Your task to perform on an android device: Search for bose soundlink on target.com, select the first entry, and add it to the cart. Image 0: 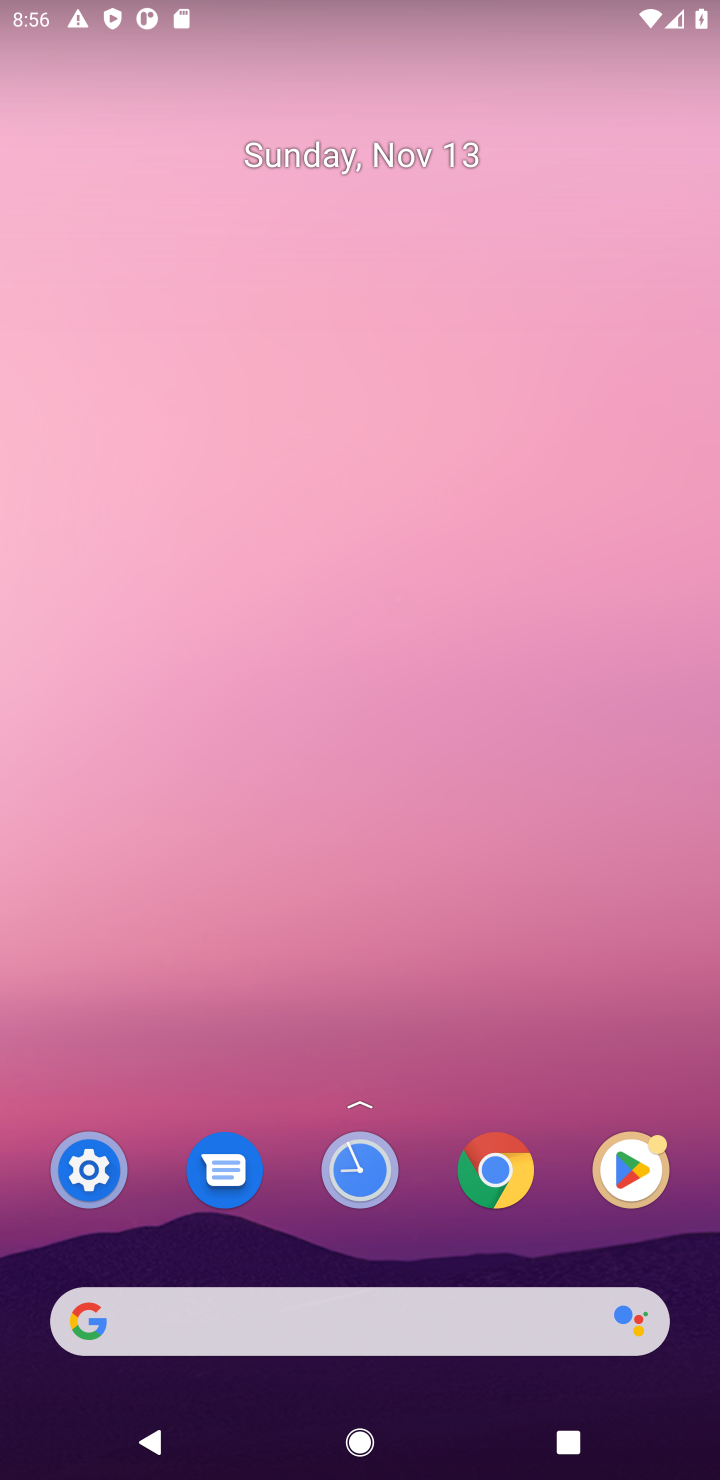
Step 0: click (401, 1330)
Your task to perform on an android device: Search for bose soundlink on target.com, select the first entry, and add it to the cart. Image 1: 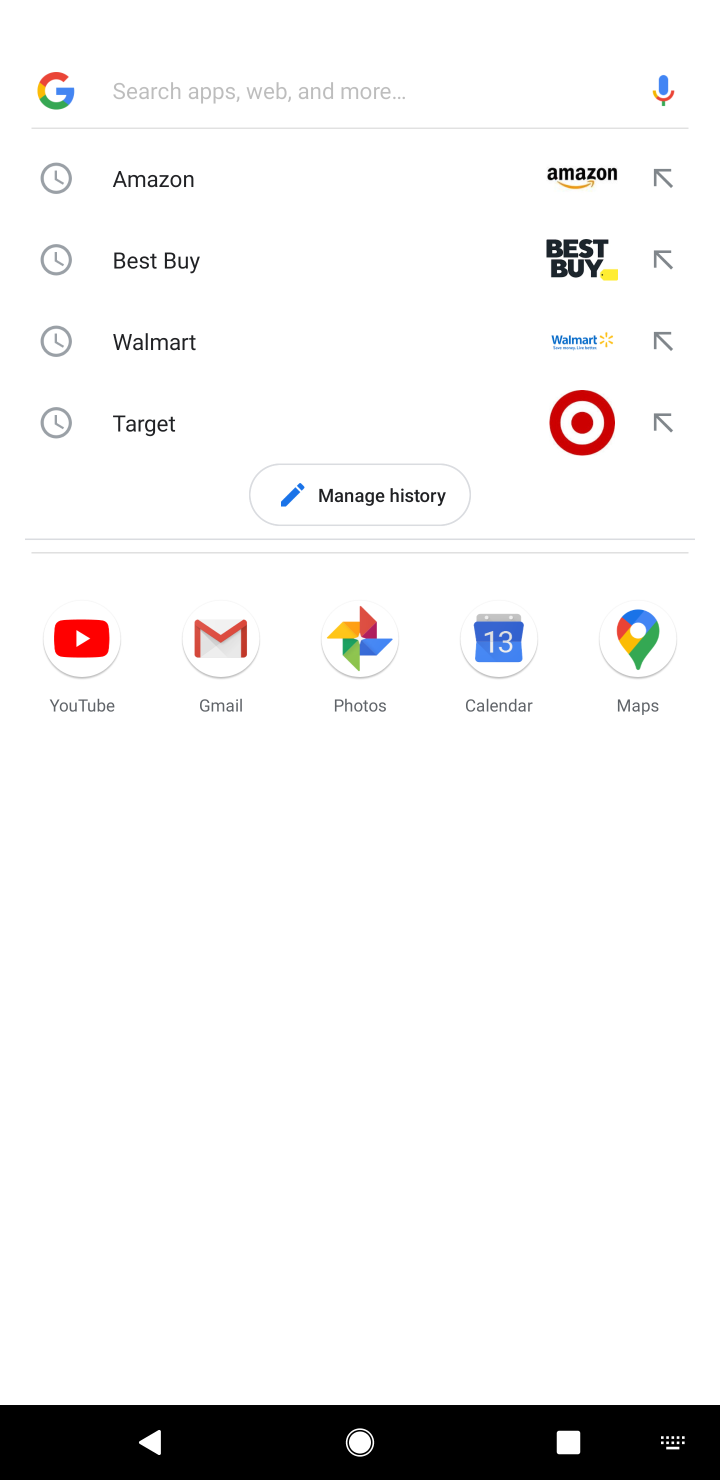
Step 1: type "target"
Your task to perform on an android device: Search for bose soundlink on target.com, select the first entry, and add it to the cart. Image 2: 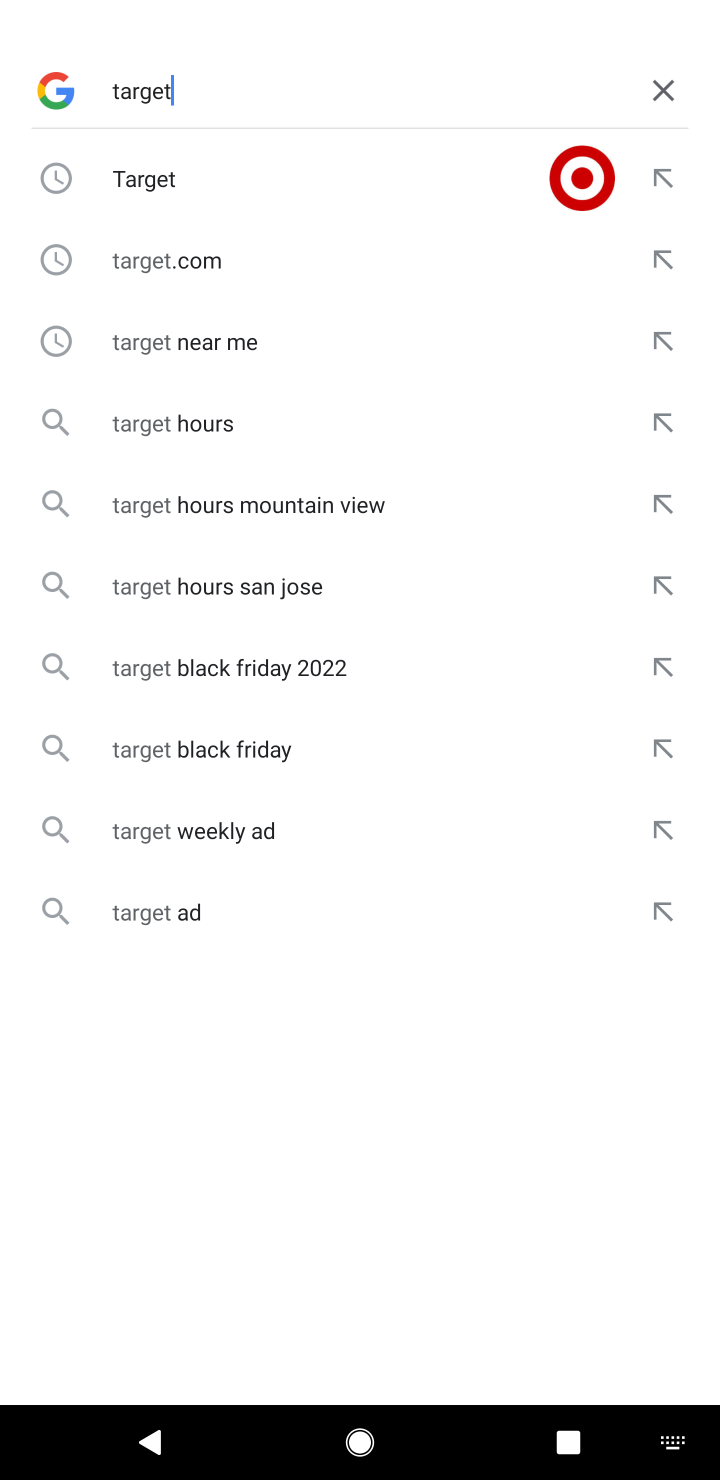
Step 2: click (163, 167)
Your task to perform on an android device: Search for bose soundlink on target.com, select the first entry, and add it to the cart. Image 3: 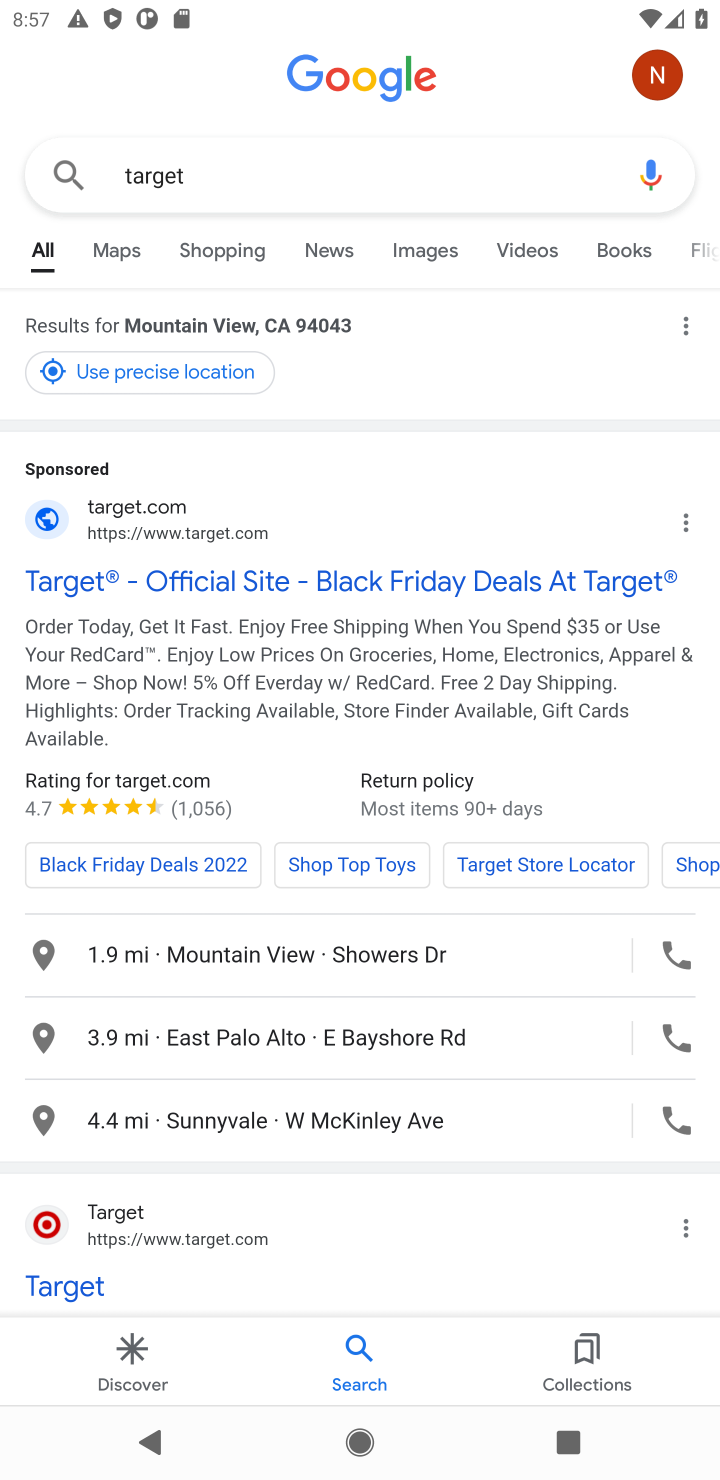
Step 3: click (180, 585)
Your task to perform on an android device: Search for bose soundlink on target.com, select the first entry, and add it to the cart. Image 4: 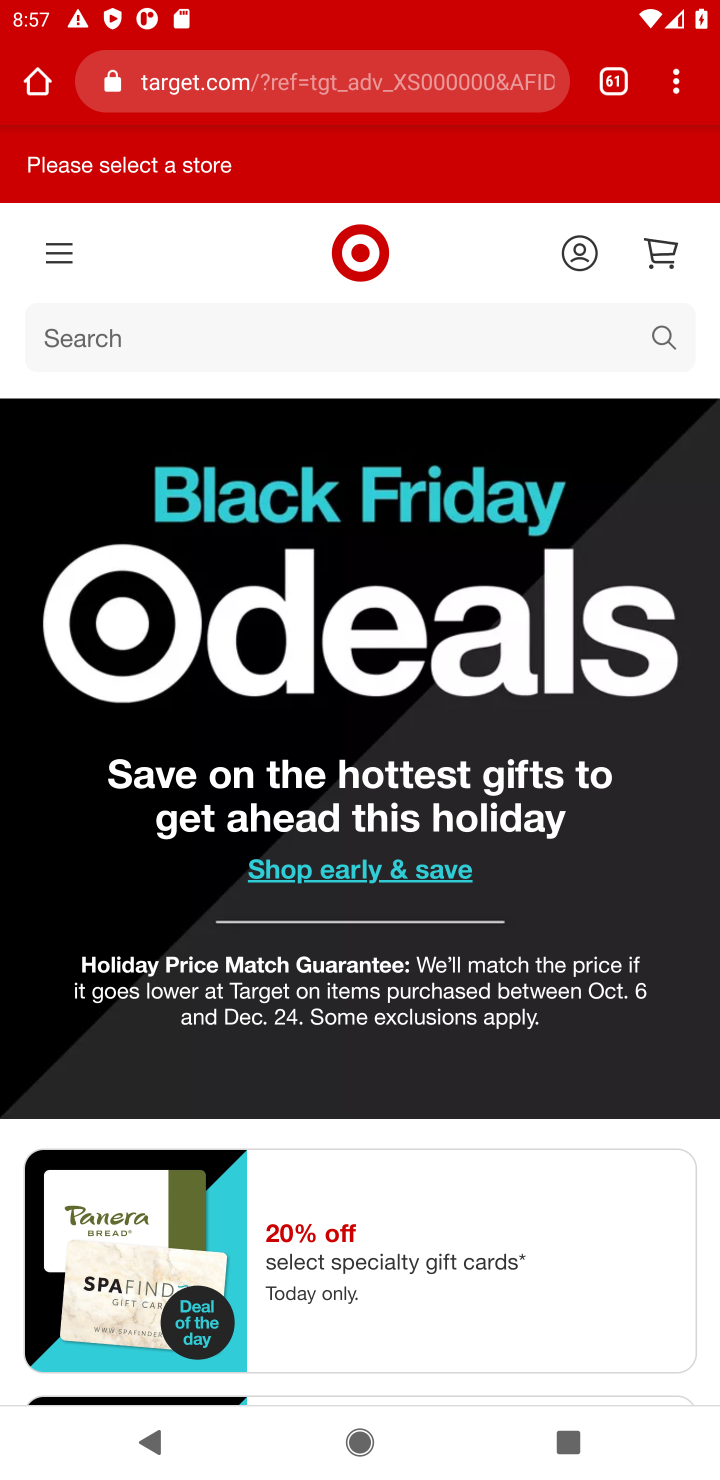
Step 4: task complete